Your task to perform on an android device: toggle airplane mode Image 0: 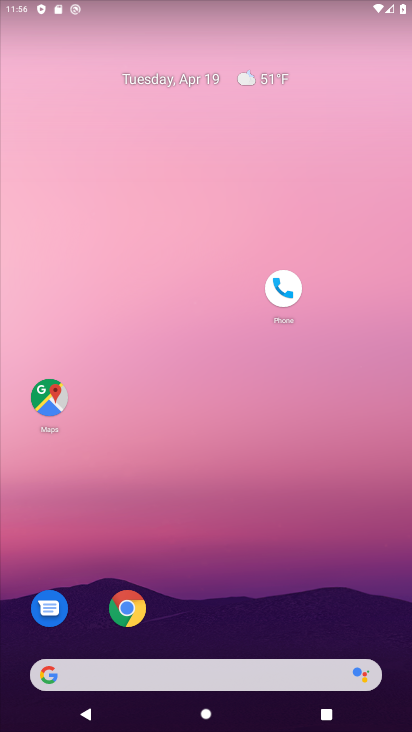
Step 0: drag from (205, 632) to (198, 93)
Your task to perform on an android device: toggle airplane mode Image 1: 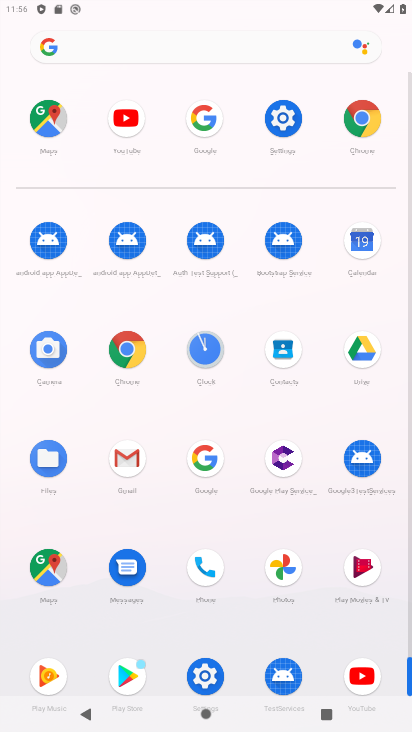
Step 1: drag from (233, 649) to (264, 364)
Your task to perform on an android device: toggle airplane mode Image 2: 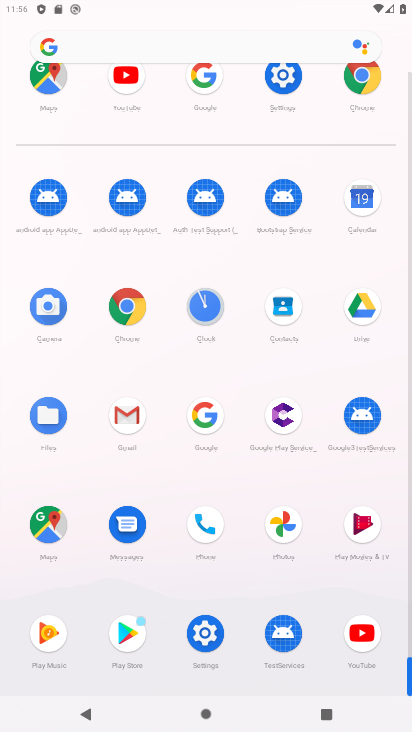
Step 2: click (213, 612)
Your task to perform on an android device: toggle airplane mode Image 3: 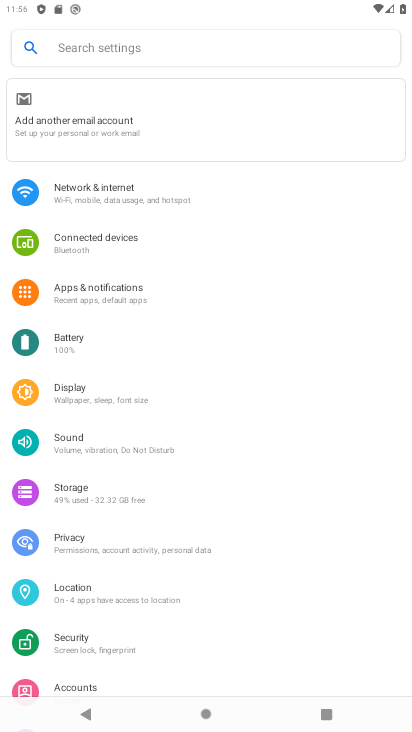
Step 3: click (159, 194)
Your task to perform on an android device: toggle airplane mode Image 4: 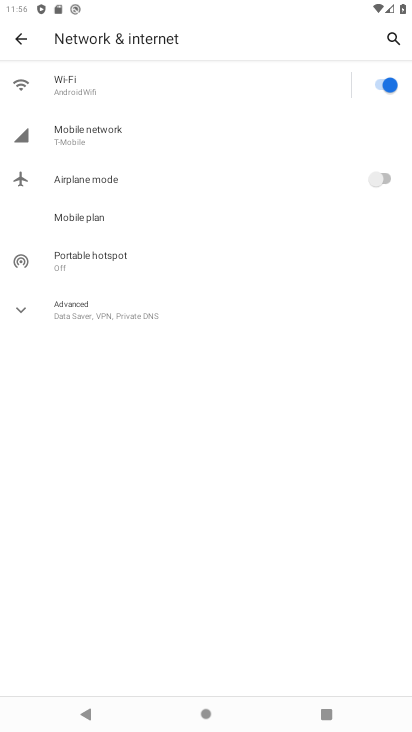
Step 4: click (386, 173)
Your task to perform on an android device: toggle airplane mode Image 5: 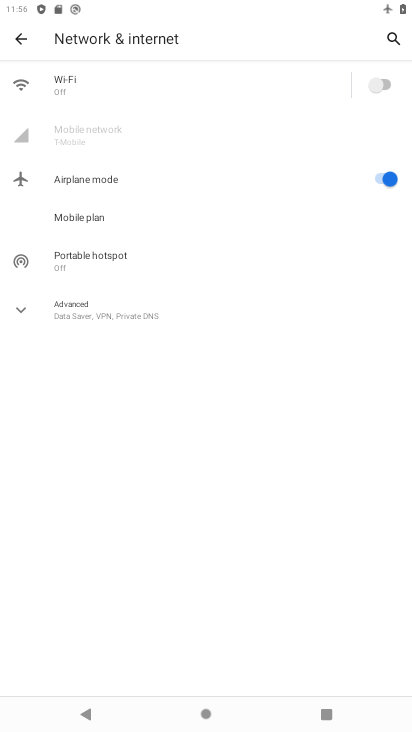
Step 5: task complete